Your task to perform on an android device: check storage Image 0: 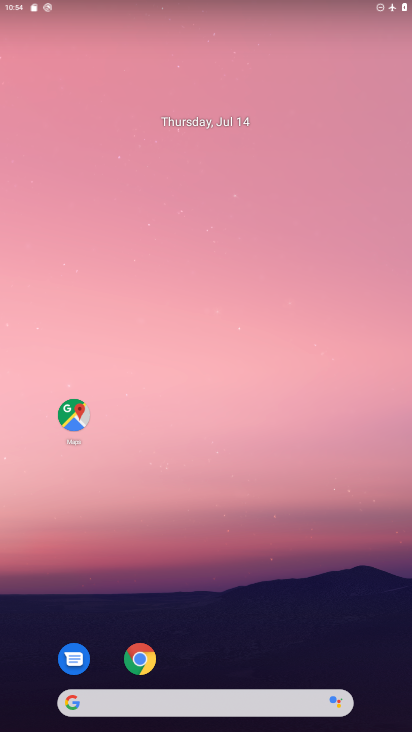
Step 0: drag from (283, 603) to (291, 44)
Your task to perform on an android device: check storage Image 1: 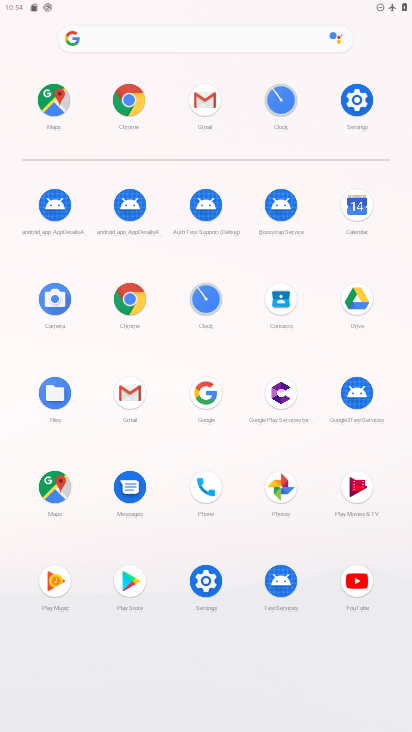
Step 1: click (348, 104)
Your task to perform on an android device: check storage Image 2: 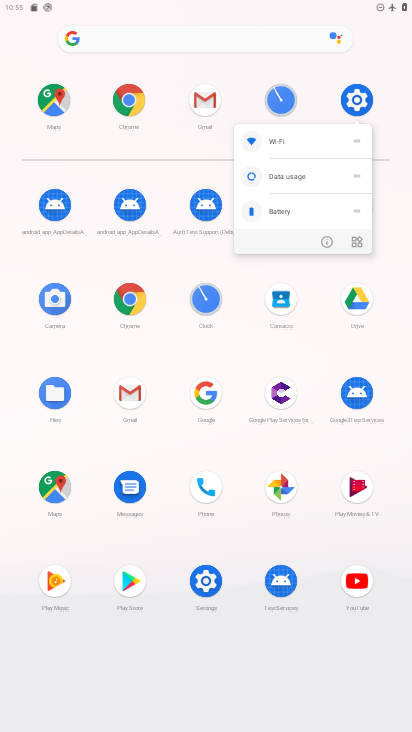
Step 2: click (357, 93)
Your task to perform on an android device: check storage Image 3: 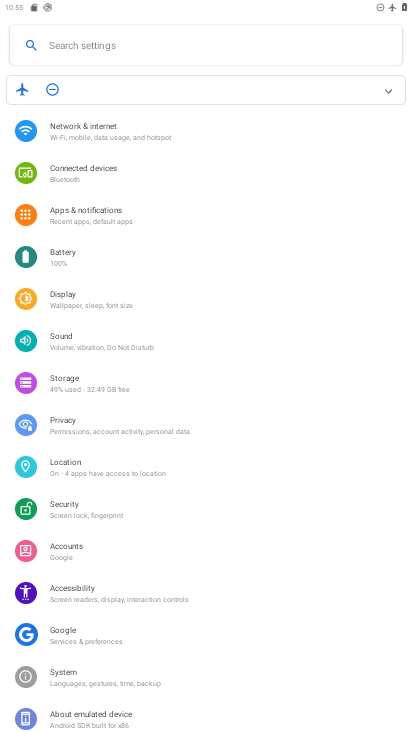
Step 3: click (96, 379)
Your task to perform on an android device: check storage Image 4: 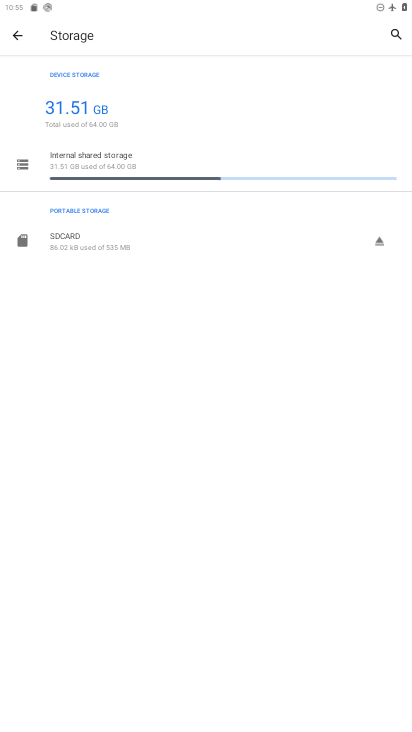
Step 4: task complete